Your task to perform on an android device: uninstall "Messenger Lite" Image 0: 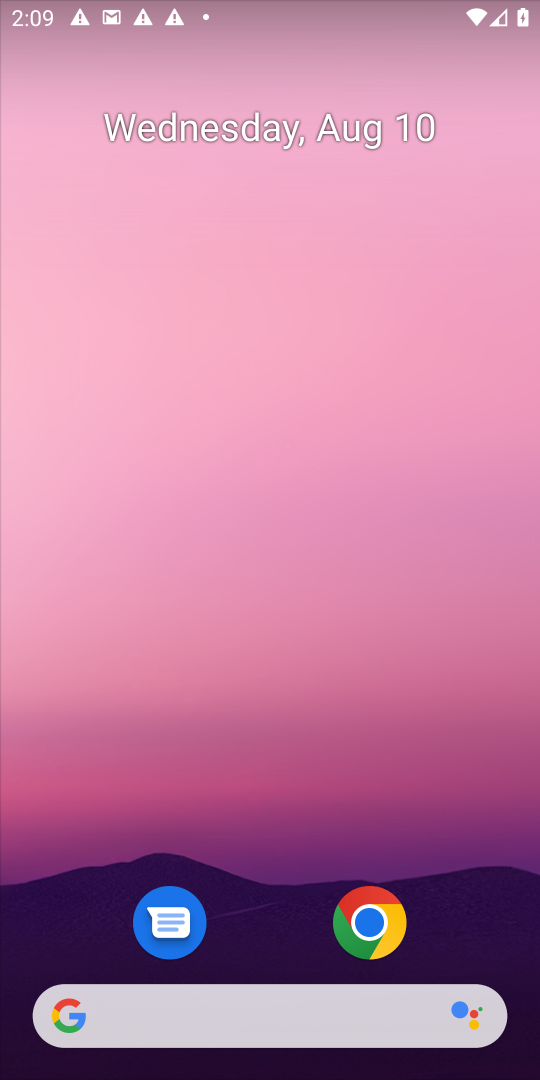
Step 0: drag from (259, 865) to (208, 124)
Your task to perform on an android device: uninstall "Messenger Lite" Image 1: 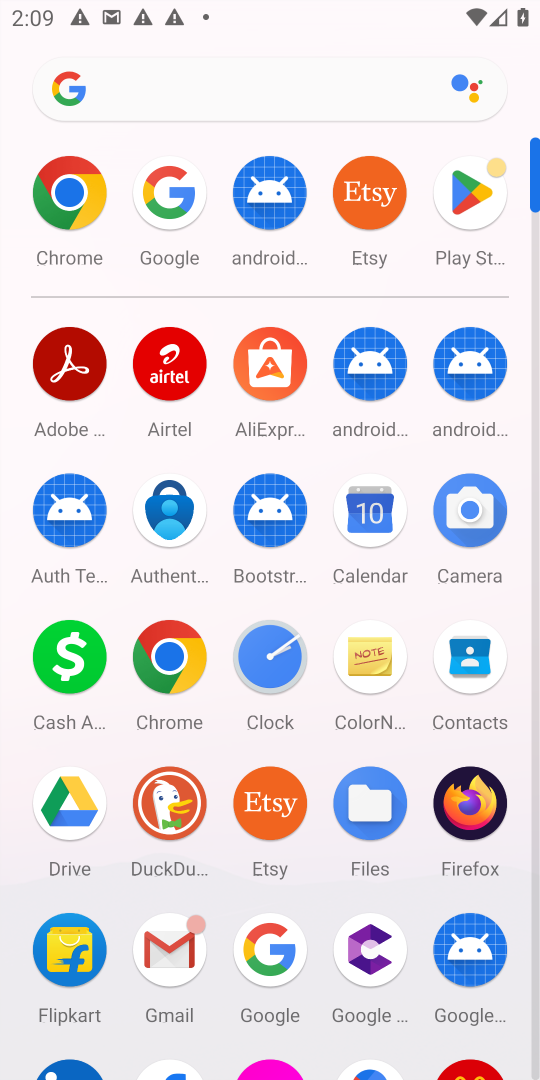
Step 1: click (467, 203)
Your task to perform on an android device: uninstall "Messenger Lite" Image 2: 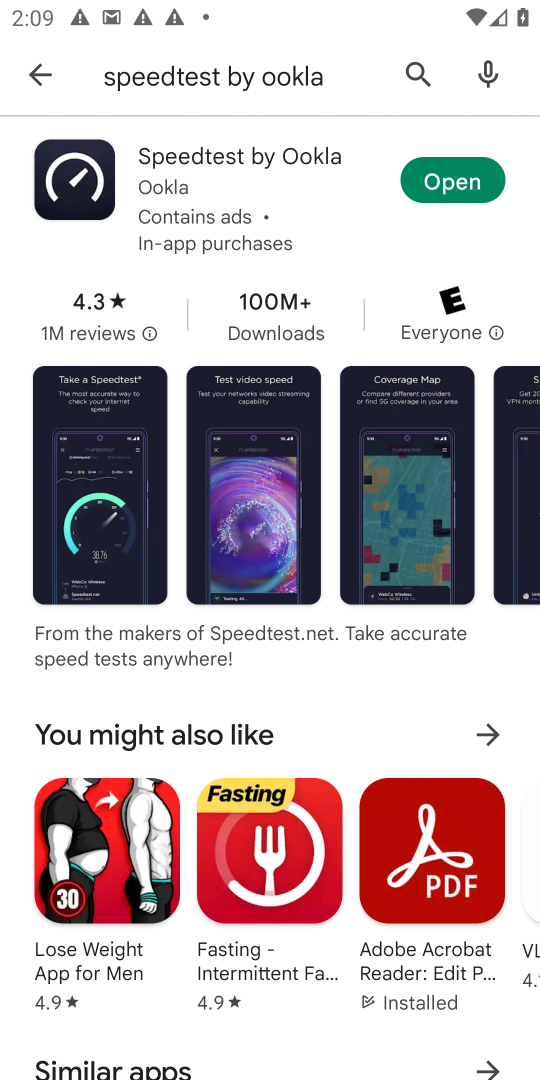
Step 2: click (42, 72)
Your task to perform on an android device: uninstall "Messenger Lite" Image 3: 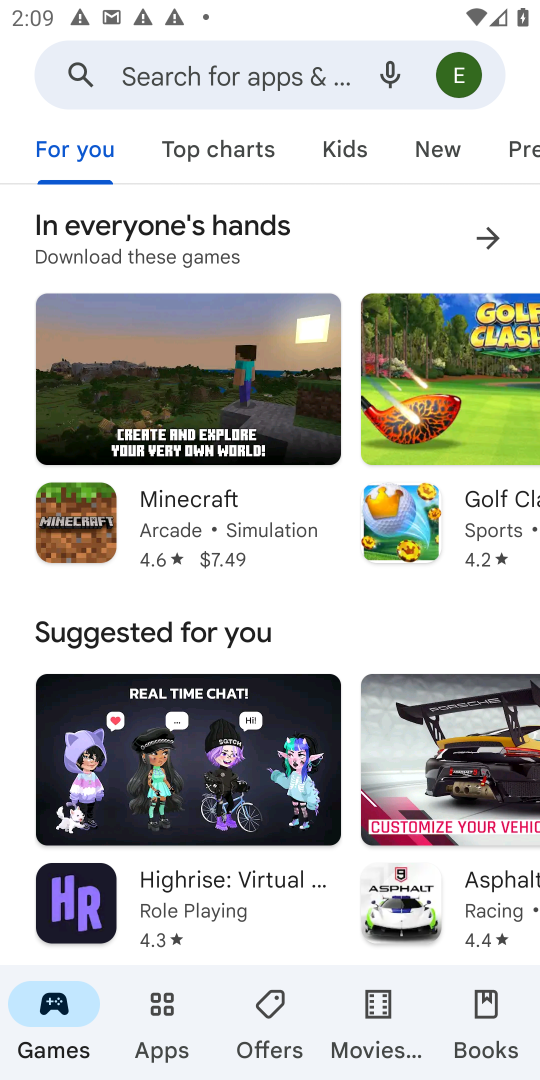
Step 3: click (273, 70)
Your task to perform on an android device: uninstall "Messenger Lite" Image 4: 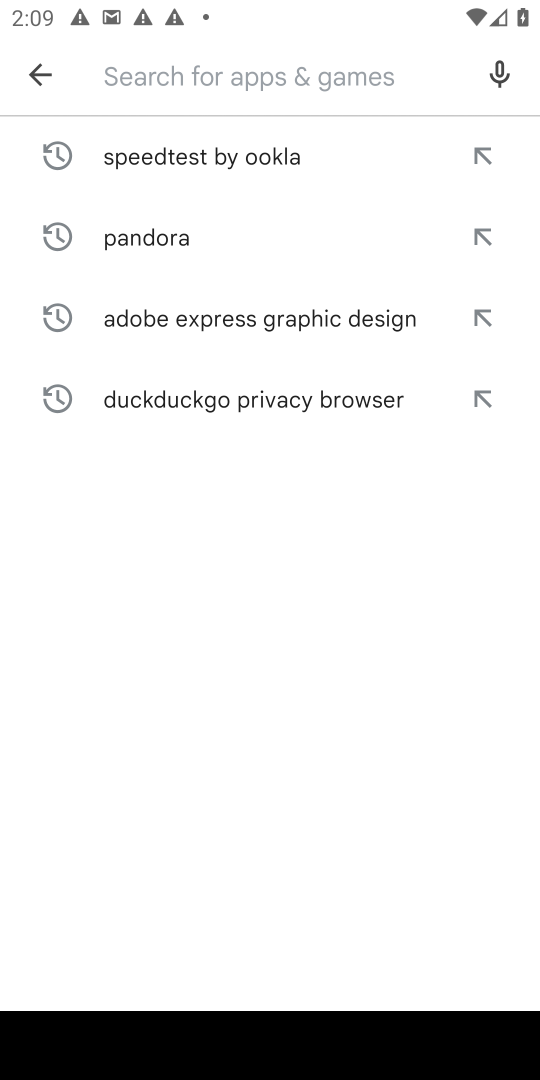
Step 4: type "Messenger Lite"
Your task to perform on an android device: uninstall "Messenger Lite" Image 5: 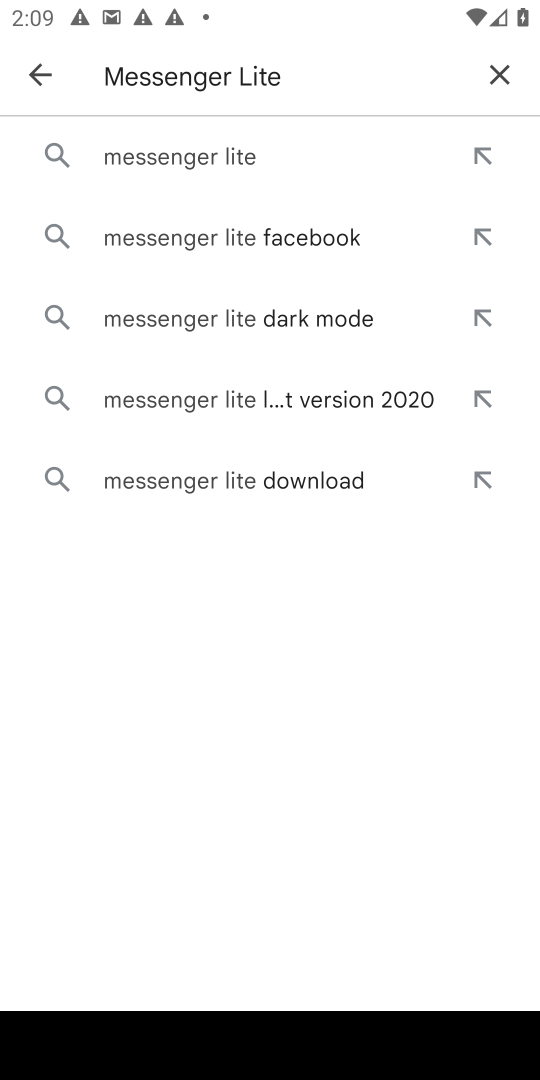
Step 5: click (177, 148)
Your task to perform on an android device: uninstall "Messenger Lite" Image 6: 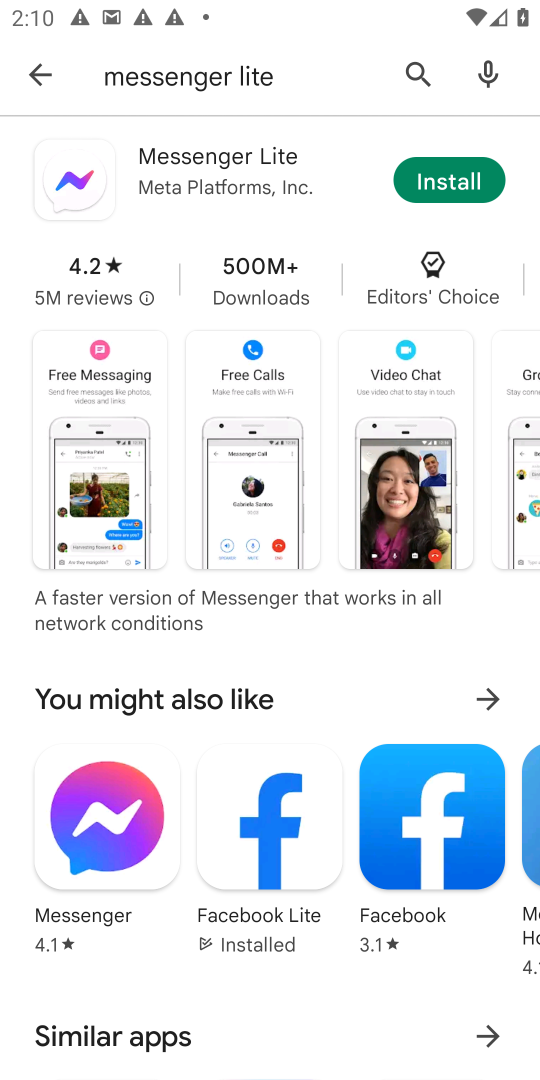
Step 6: task complete